Your task to perform on an android device: change the upload size in google photos Image 0: 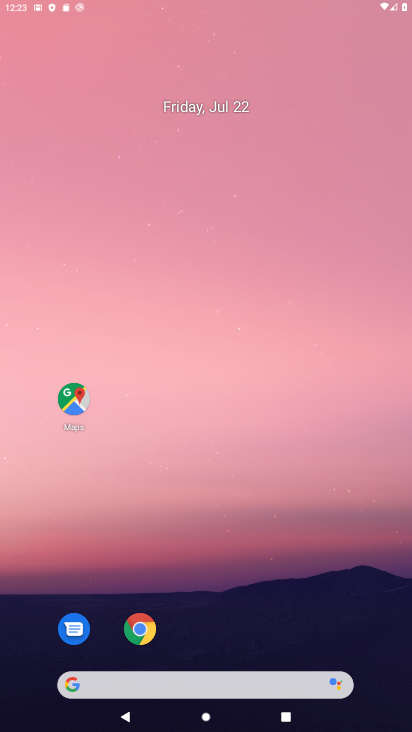
Step 0: click (167, 255)
Your task to perform on an android device: change the upload size in google photos Image 1: 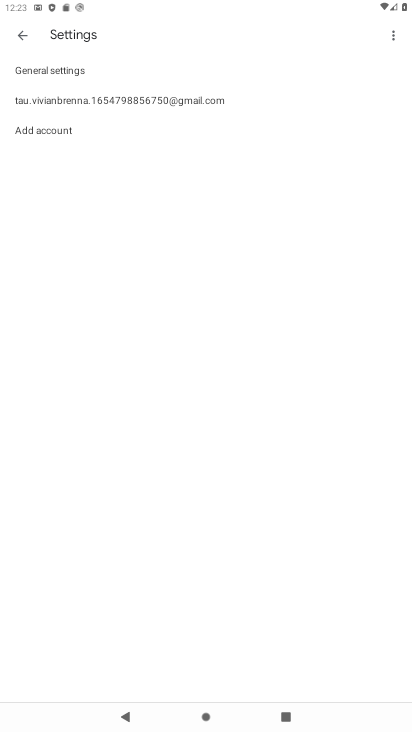
Step 1: drag from (255, 546) to (226, 216)
Your task to perform on an android device: change the upload size in google photos Image 2: 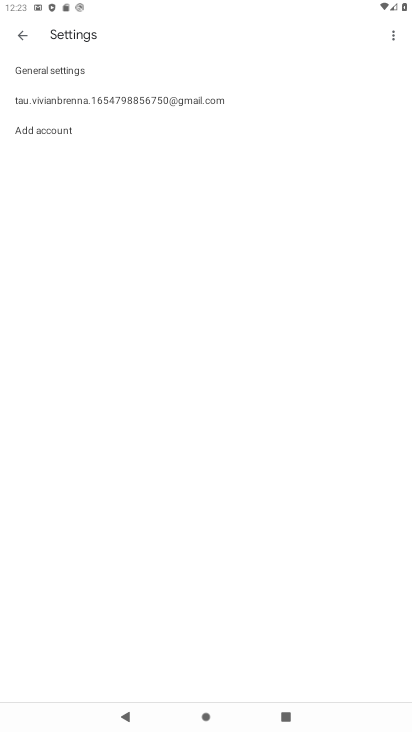
Step 2: click (69, 106)
Your task to perform on an android device: change the upload size in google photos Image 3: 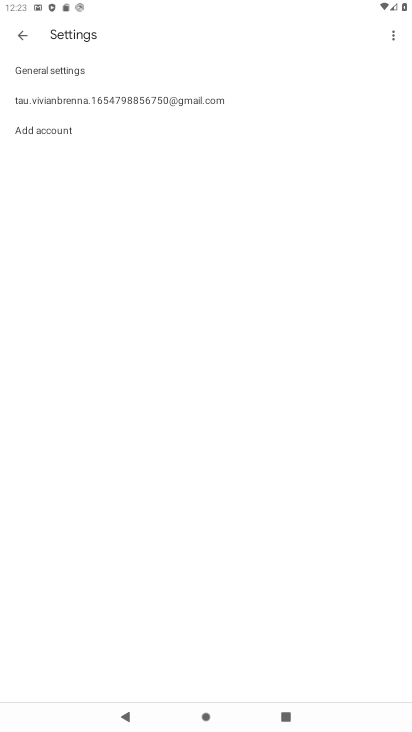
Step 3: click (69, 106)
Your task to perform on an android device: change the upload size in google photos Image 4: 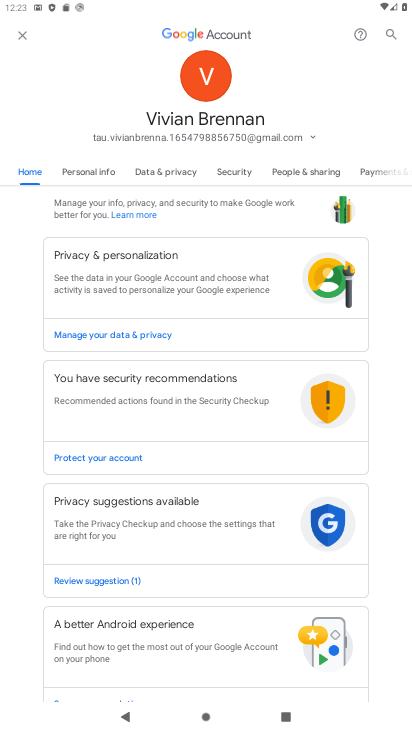
Step 4: click (23, 37)
Your task to perform on an android device: change the upload size in google photos Image 5: 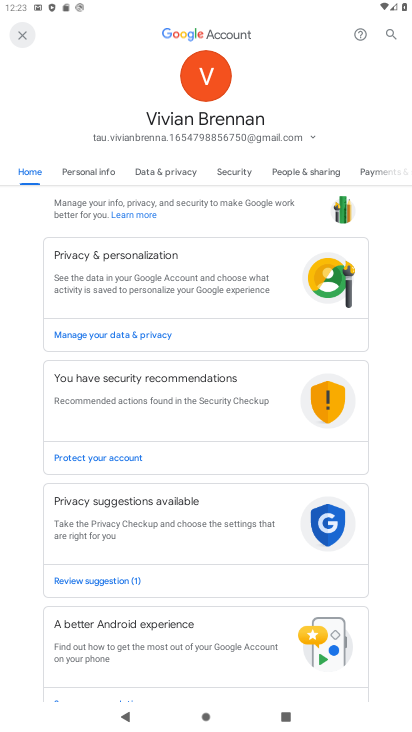
Step 5: click (31, 30)
Your task to perform on an android device: change the upload size in google photos Image 6: 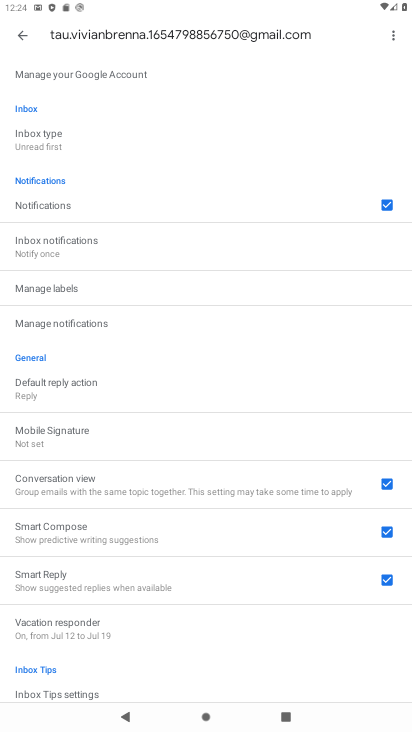
Step 6: click (27, 40)
Your task to perform on an android device: change the upload size in google photos Image 7: 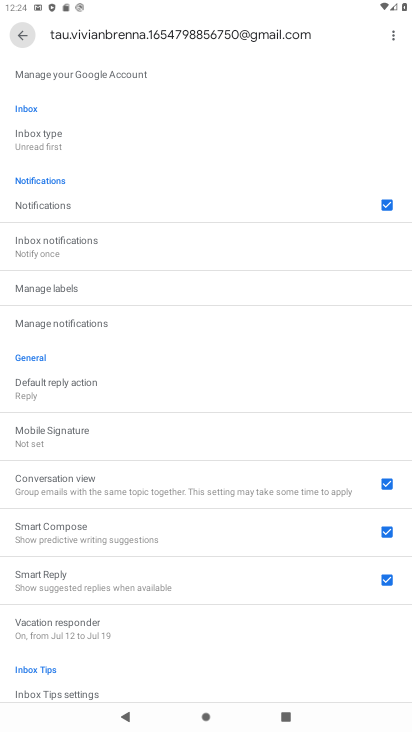
Step 7: click (23, 35)
Your task to perform on an android device: change the upload size in google photos Image 8: 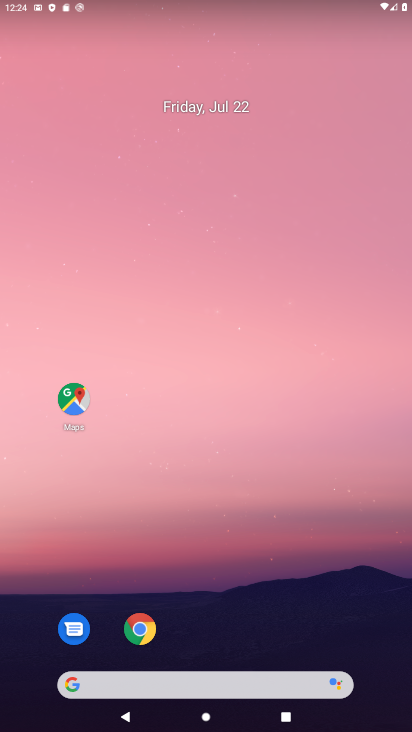
Step 8: drag from (316, 723) to (175, 145)
Your task to perform on an android device: change the upload size in google photos Image 9: 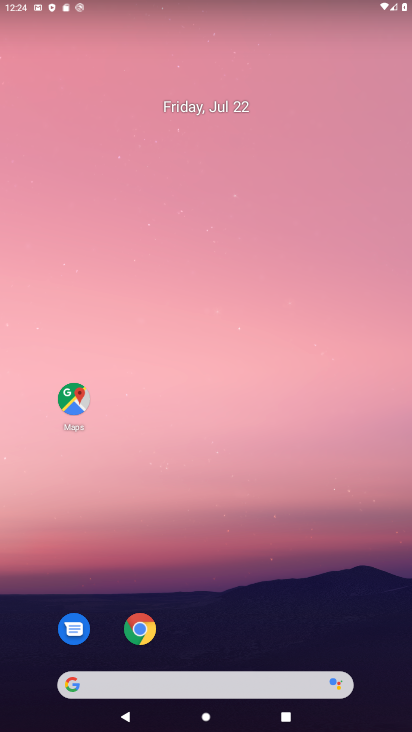
Step 9: drag from (253, 640) to (258, 193)
Your task to perform on an android device: change the upload size in google photos Image 10: 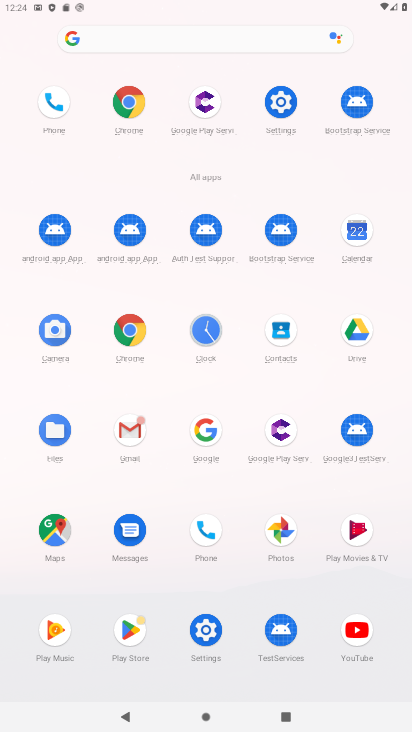
Step 10: click (286, 528)
Your task to perform on an android device: change the upload size in google photos Image 11: 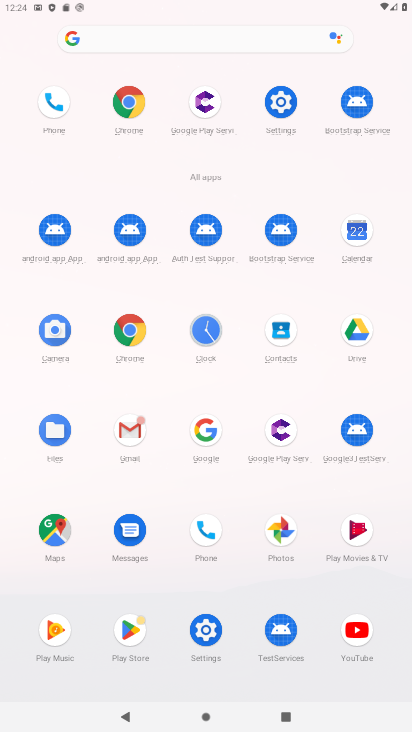
Step 11: click (274, 528)
Your task to perform on an android device: change the upload size in google photos Image 12: 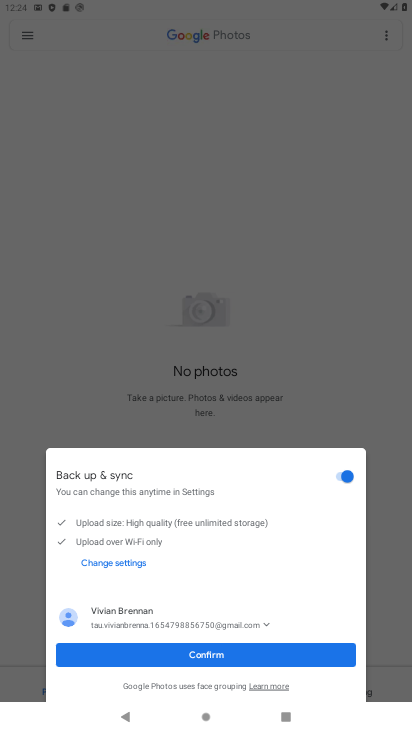
Step 12: click (216, 650)
Your task to perform on an android device: change the upload size in google photos Image 13: 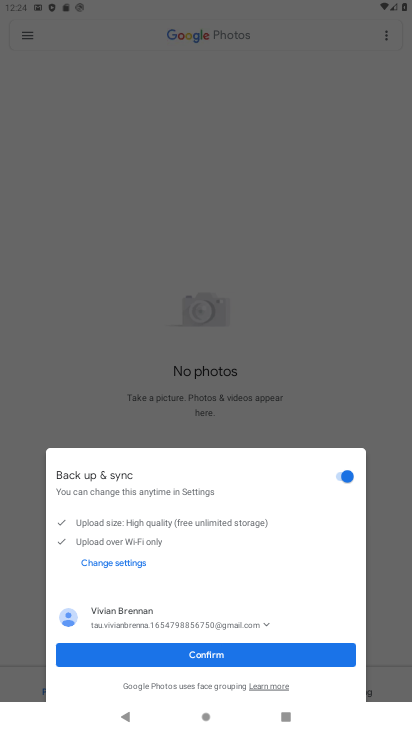
Step 13: click (220, 648)
Your task to perform on an android device: change the upload size in google photos Image 14: 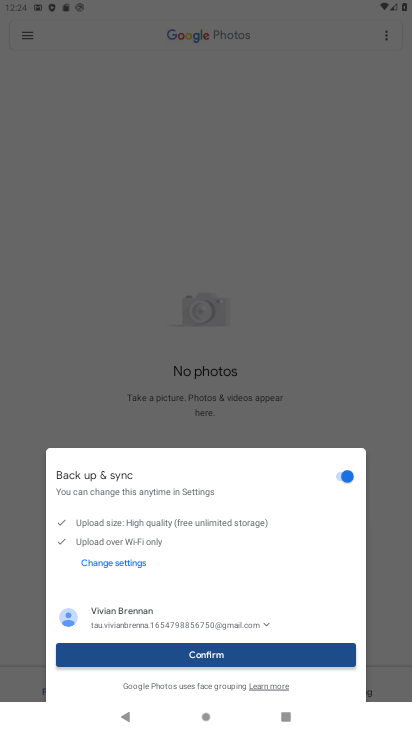
Step 14: click (230, 648)
Your task to perform on an android device: change the upload size in google photos Image 15: 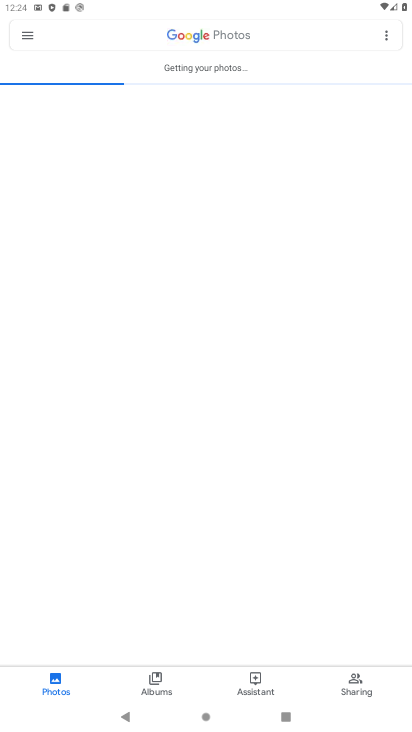
Step 15: click (253, 646)
Your task to perform on an android device: change the upload size in google photos Image 16: 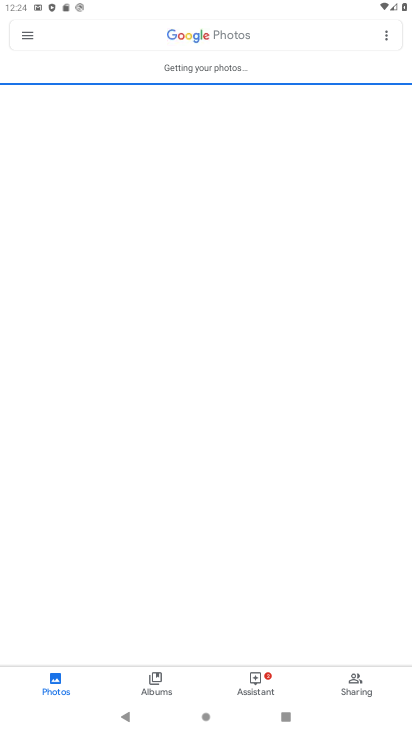
Step 16: click (268, 640)
Your task to perform on an android device: change the upload size in google photos Image 17: 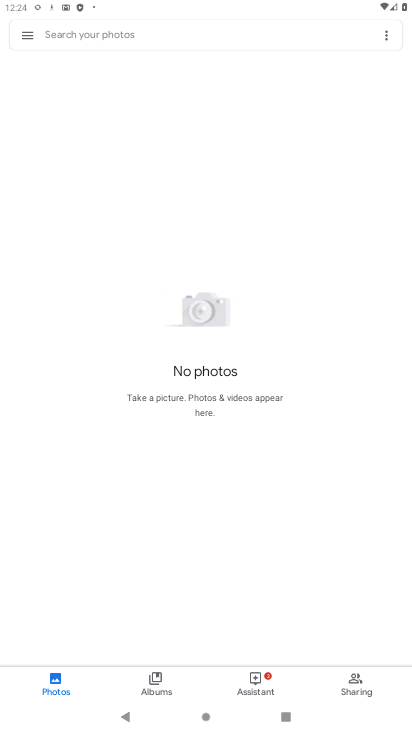
Step 17: click (34, 36)
Your task to perform on an android device: change the upload size in google photos Image 18: 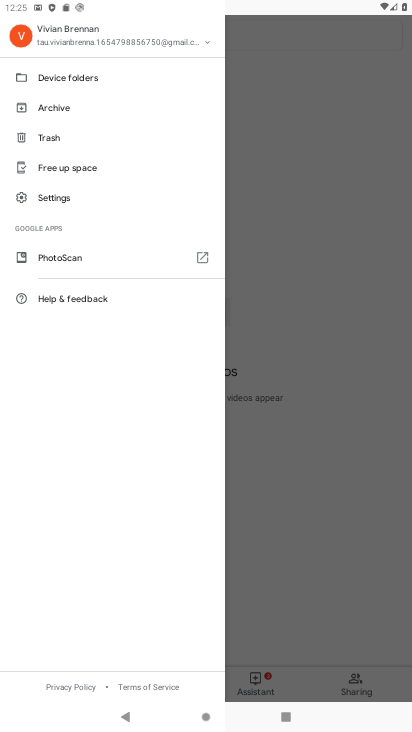
Step 18: click (56, 203)
Your task to perform on an android device: change the upload size in google photos Image 19: 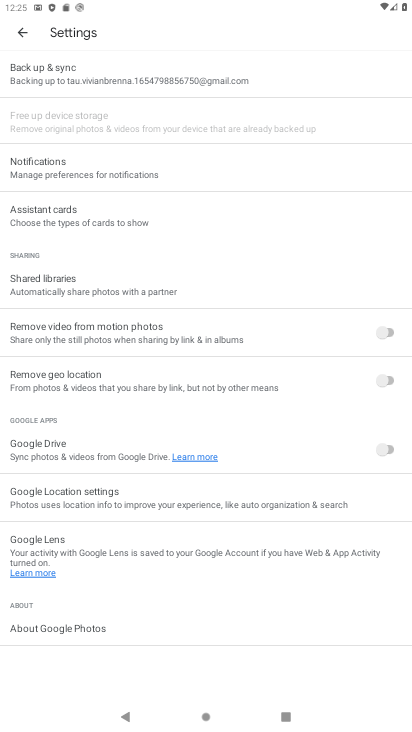
Step 19: click (60, 79)
Your task to perform on an android device: change the upload size in google photos Image 20: 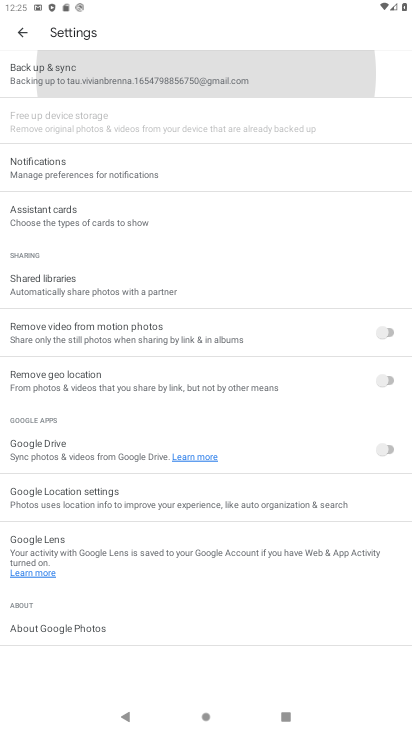
Step 20: click (60, 78)
Your task to perform on an android device: change the upload size in google photos Image 21: 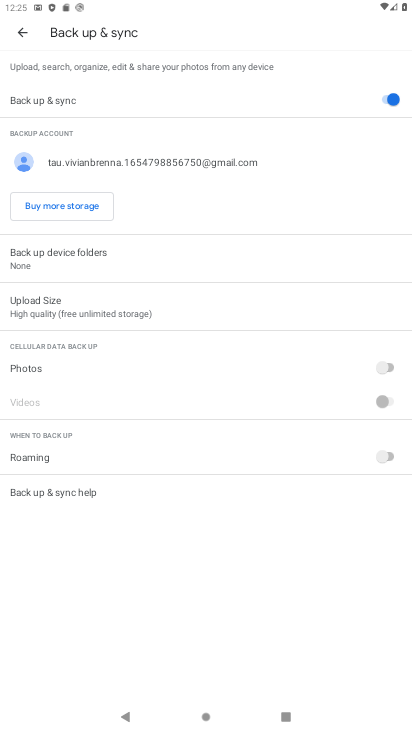
Step 21: click (44, 312)
Your task to perform on an android device: change the upload size in google photos Image 22: 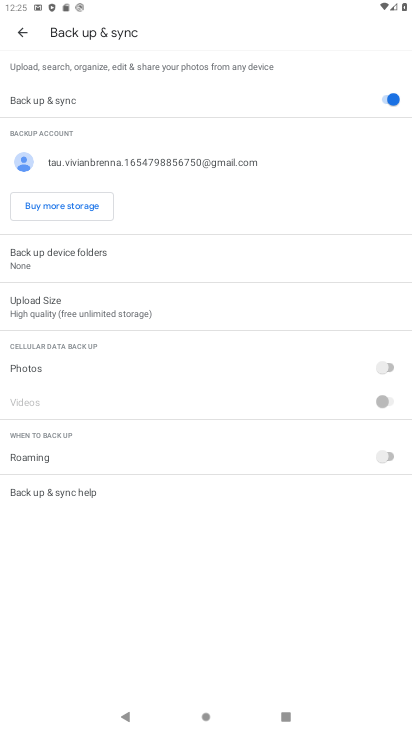
Step 22: click (43, 313)
Your task to perform on an android device: change the upload size in google photos Image 23: 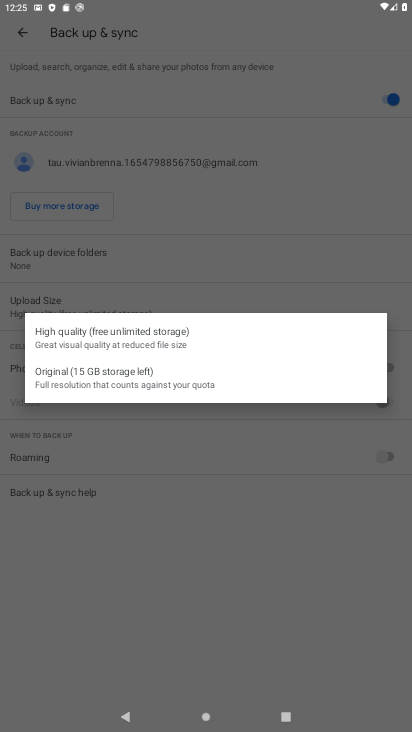
Step 23: click (59, 371)
Your task to perform on an android device: change the upload size in google photos Image 24: 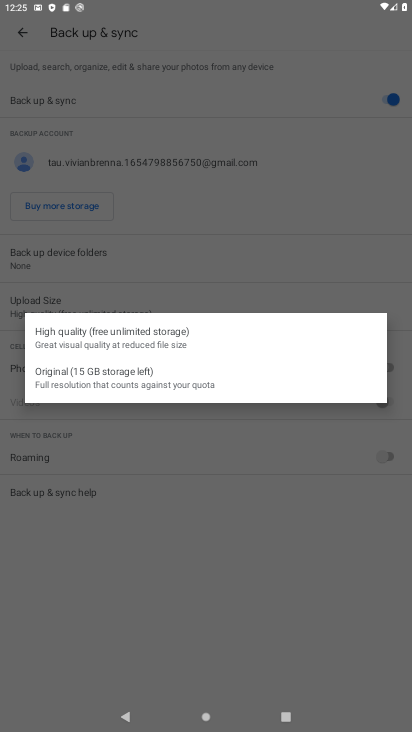
Step 24: click (60, 371)
Your task to perform on an android device: change the upload size in google photos Image 25: 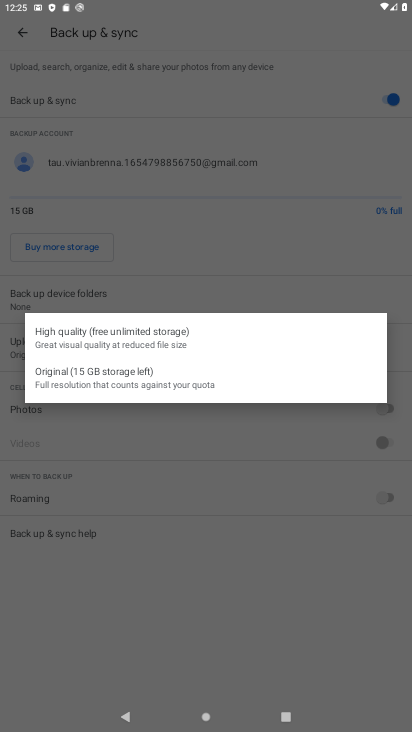
Step 25: task complete